Your task to perform on an android device: Go to network settings Image 0: 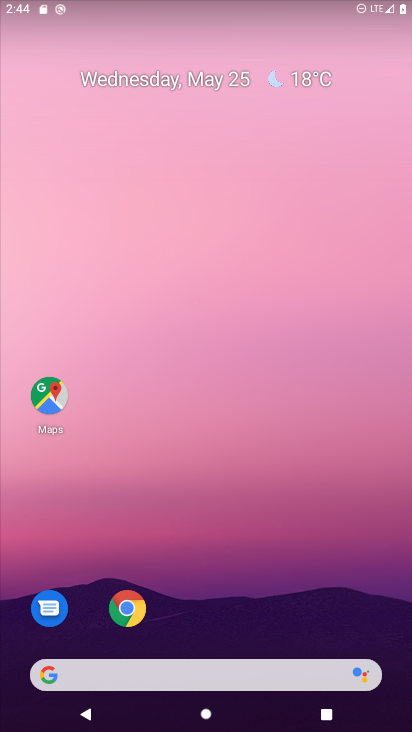
Step 0: drag from (386, 636) to (305, 110)
Your task to perform on an android device: Go to network settings Image 1: 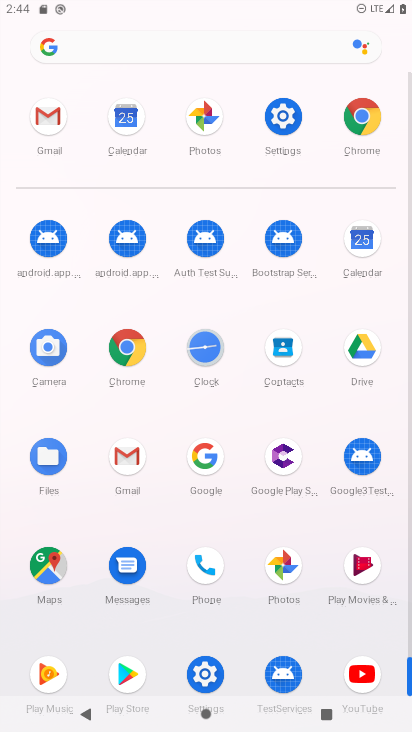
Step 1: click (206, 676)
Your task to perform on an android device: Go to network settings Image 2: 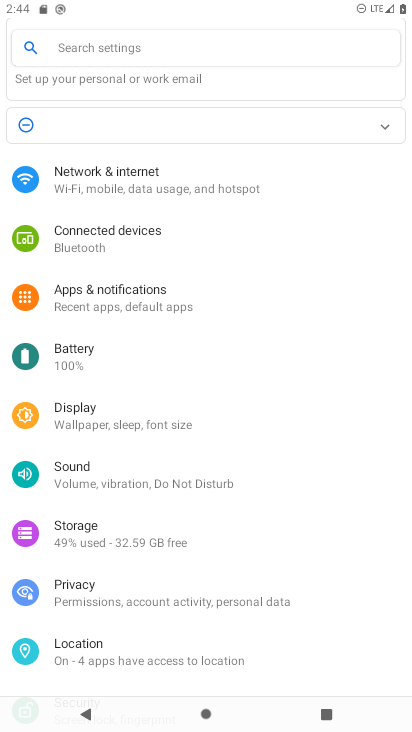
Step 2: click (115, 165)
Your task to perform on an android device: Go to network settings Image 3: 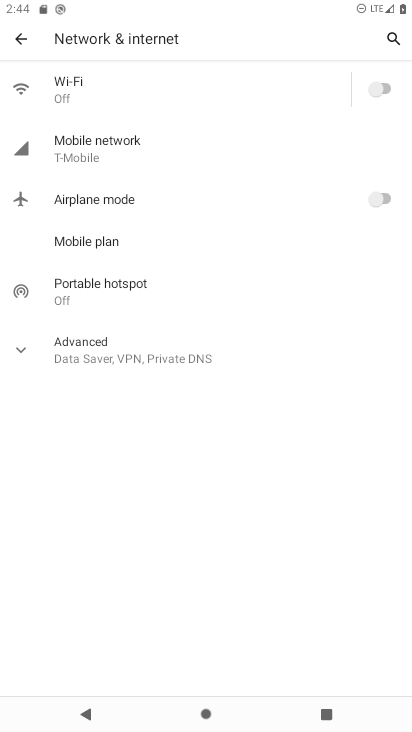
Step 3: click (89, 140)
Your task to perform on an android device: Go to network settings Image 4: 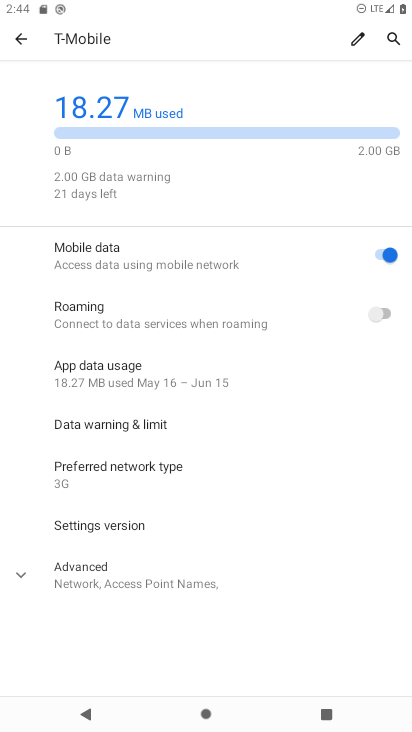
Step 4: click (36, 574)
Your task to perform on an android device: Go to network settings Image 5: 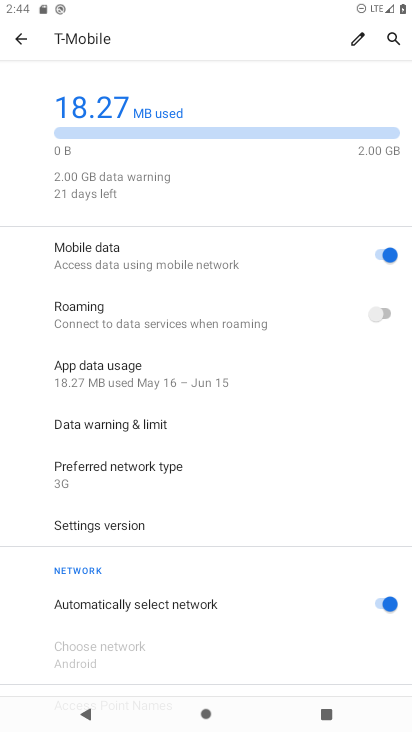
Step 5: task complete